Your task to perform on an android device: Check the news Image 0: 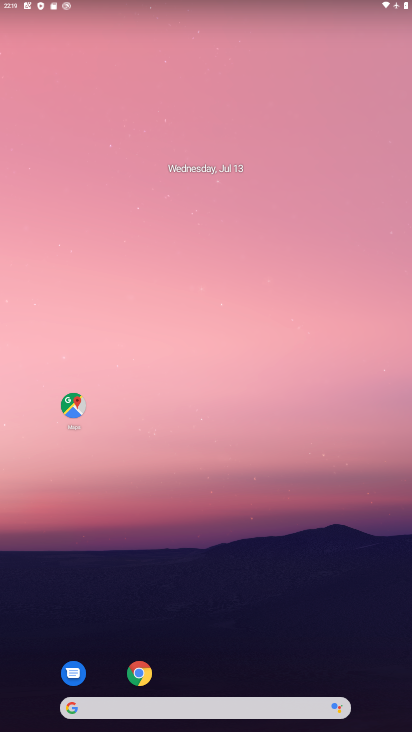
Step 0: drag from (231, 663) to (306, 143)
Your task to perform on an android device: Check the news Image 1: 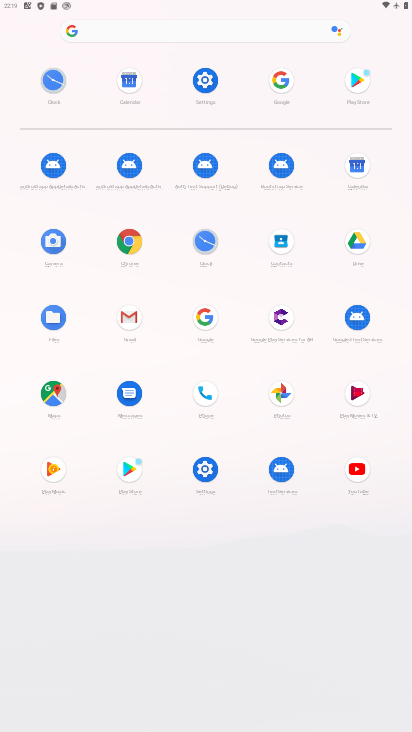
Step 1: click (281, 100)
Your task to perform on an android device: Check the news Image 2: 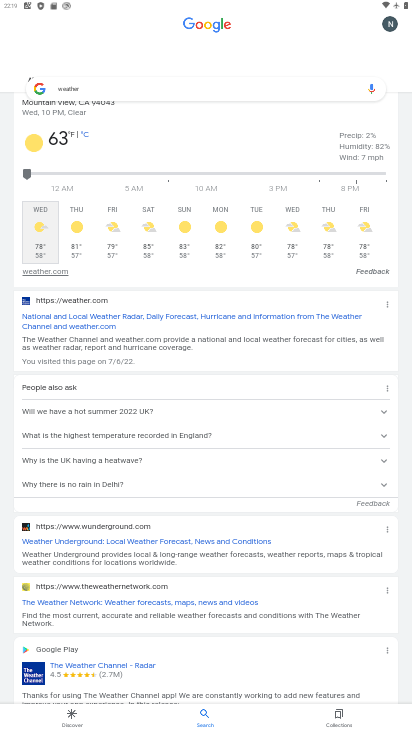
Step 2: click (103, 79)
Your task to perform on an android device: Check the news Image 3: 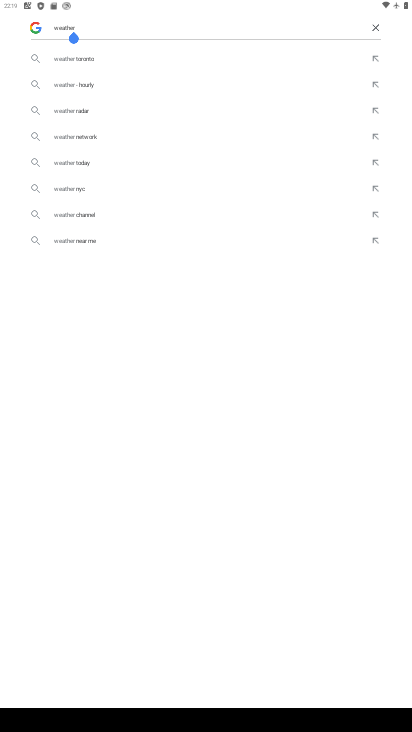
Step 3: click (374, 30)
Your task to perform on an android device: Check the news Image 4: 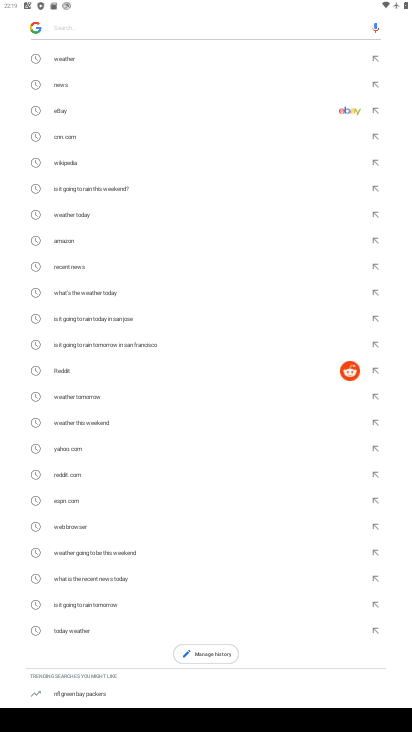
Step 4: type "news"
Your task to perform on an android device: Check the news Image 5: 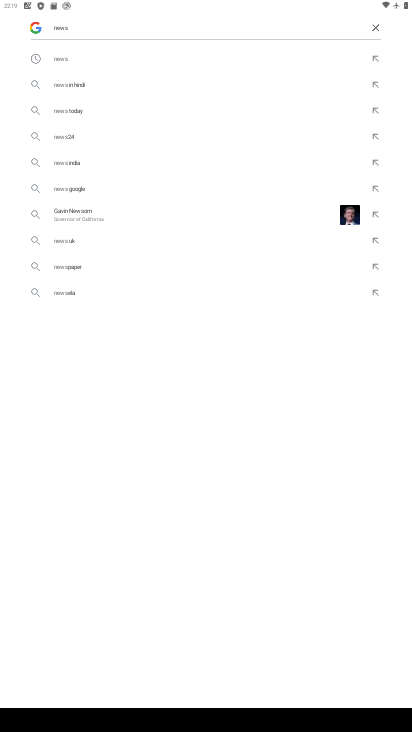
Step 5: click (81, 61)
Your task to perform on an android device: Check the news Image 6: 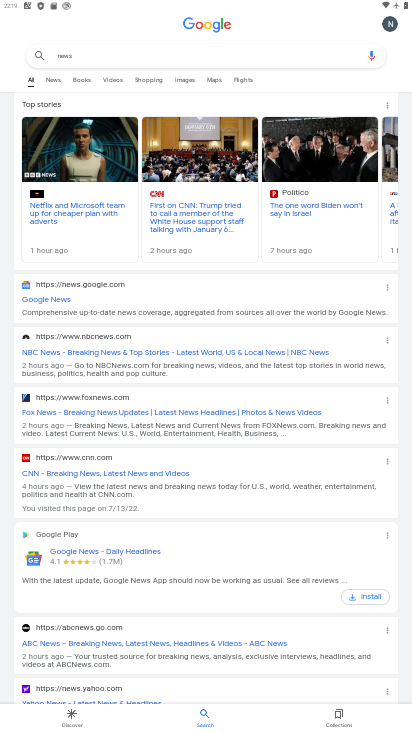
Step 6: click (57, 84)
Your task to perform on an android device: Check the news Image 7: 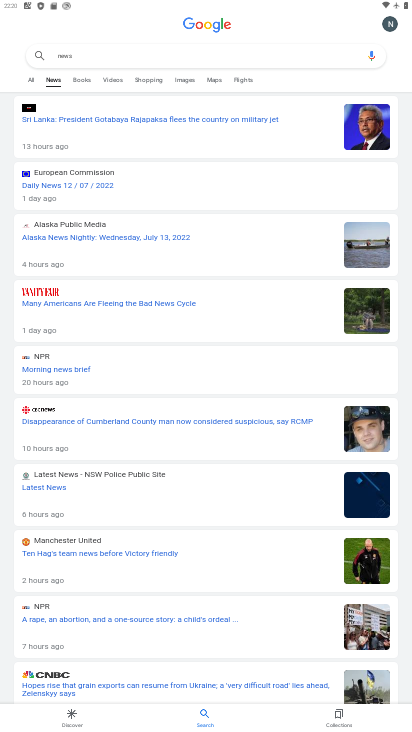
Step 7: task complete